Your task to perform on an android device: toggle airplane mode Image 0: 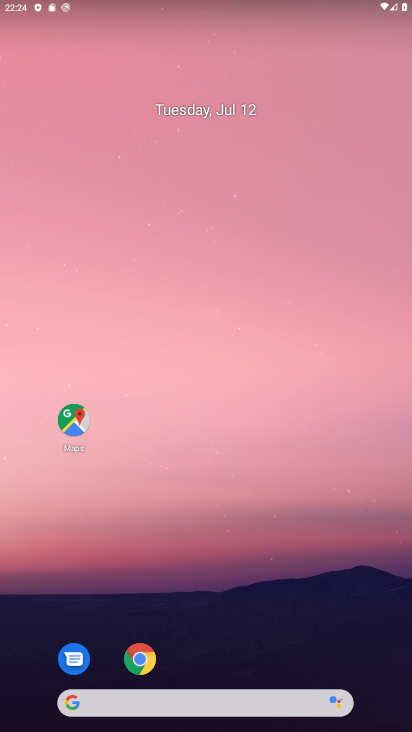
Step 0: drag from (226, 622) to (280, 342)
Your task to perform on an android device: toggle airplane mode Image 1: 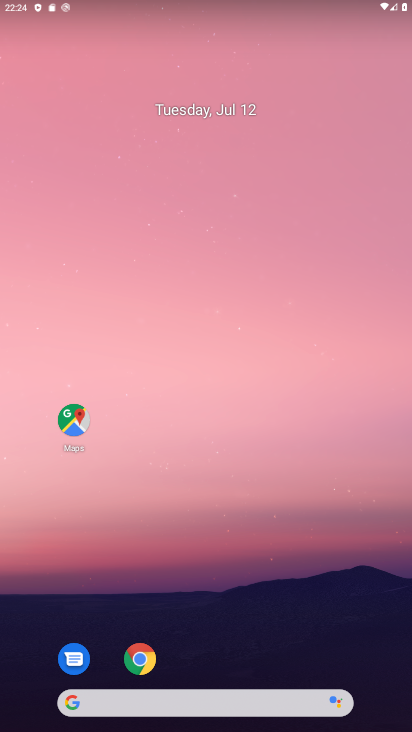
Step 1: click (254, 238)
Your task to perform on an android device: toggle airplane mode Image 2: 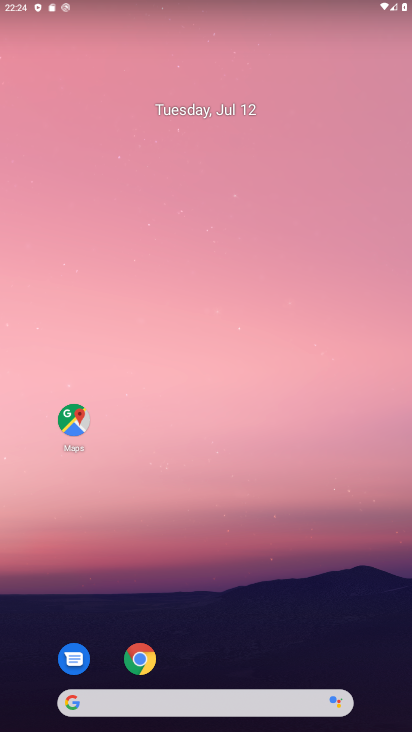
Step 2: click (235, 357)
Your task to perform on an android device: toggle airplane mode Image 3: 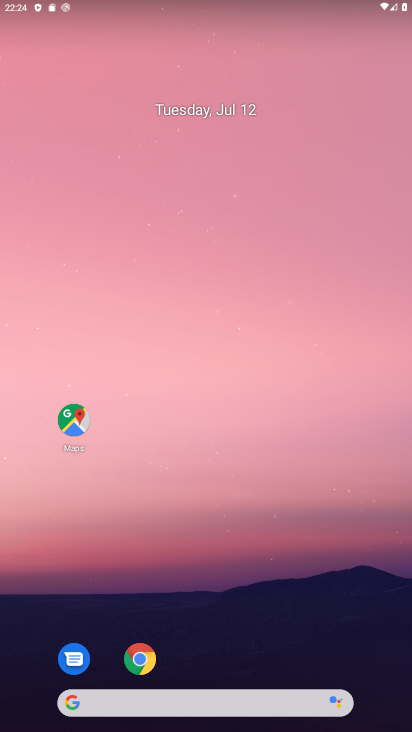
Step 3: click (210, 251)
Your task to perform on an android device: toggle airplane mode Image 4: 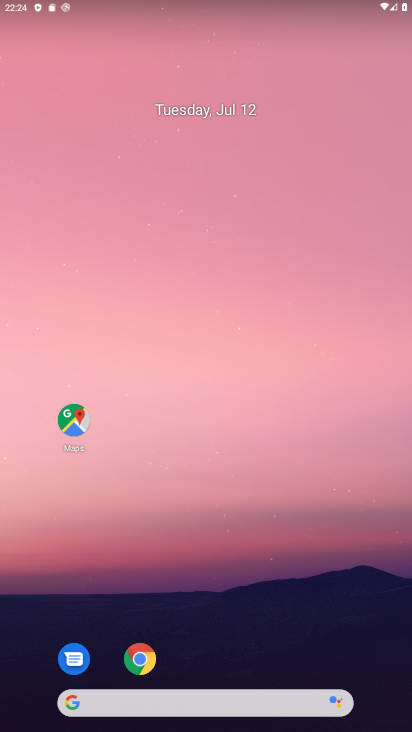
Step 4: drag from (183, 668) to (184, 313)
Your task to perform on an android device: toggle airplane mode Image 5: 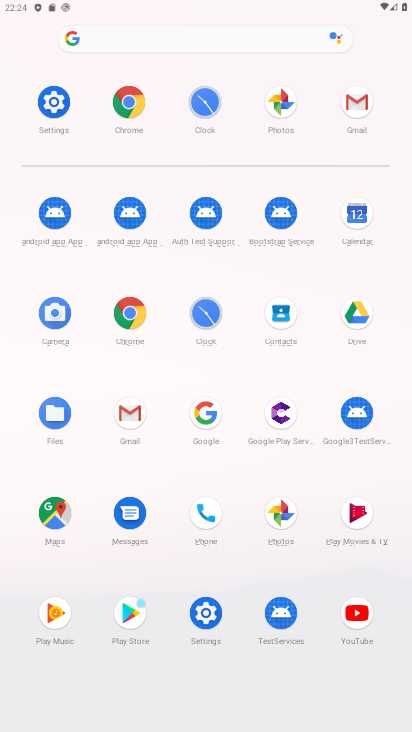
Step 5: drag from (178, 638) to (189, 256)
Your task to perform on an android device: toggle airplane mode Image 6: 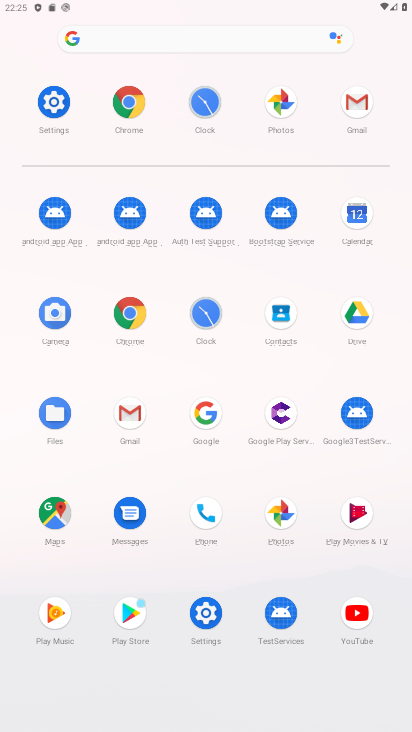
Step 6: click (44, 95)
Your task to perform on an android device: toggle airplane mode Image 7: 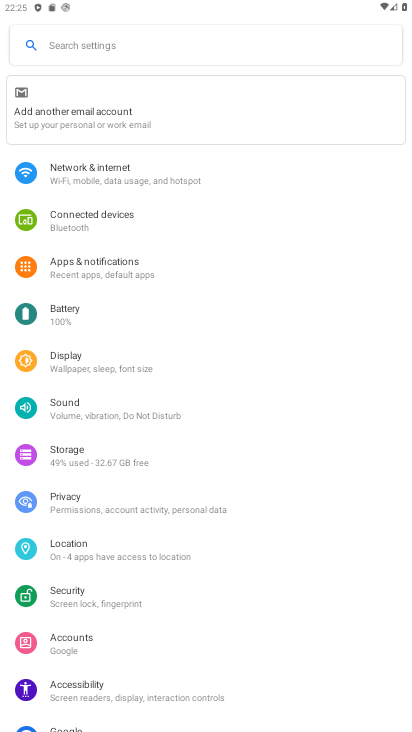
Step 7: click (95, 157)
Your task to perform on an android device: toggle airplane mode Image 8: 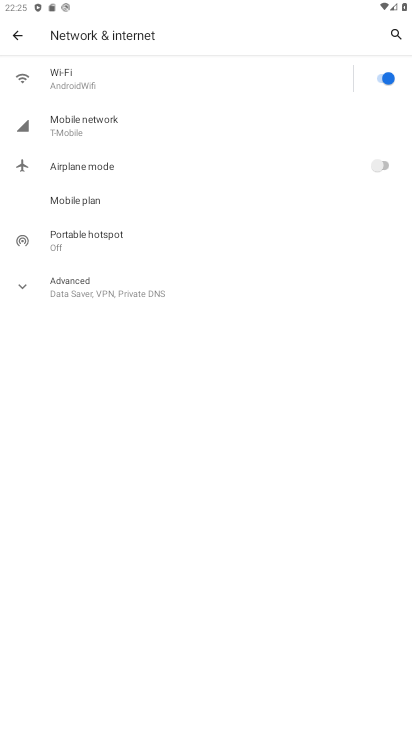
Step 8: click (381, 160)
Your task to perform on an android device: toggle airplane mode Image 9: 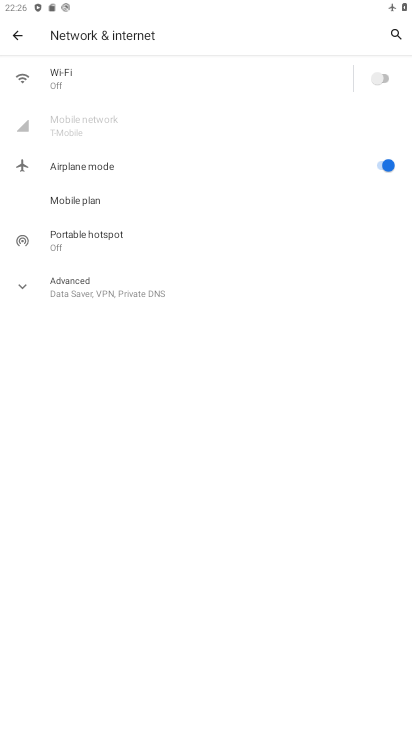
Step 9: task complete